Your task to perform on an android device: open a bookmark in the chrome app Image 0: 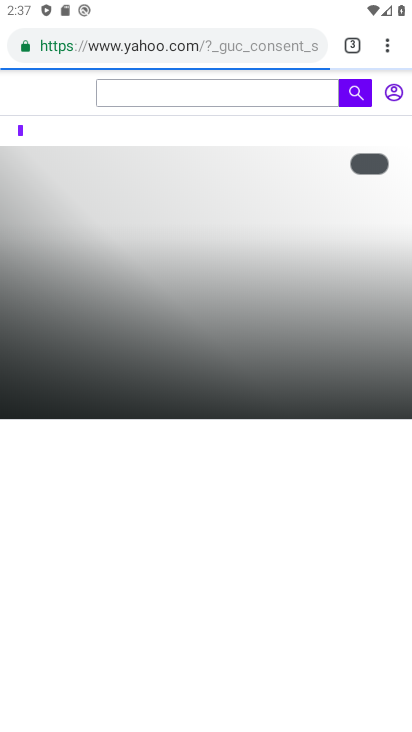
Step 0: drag from (389, 45) to (244, 175)
Your task to perform on an android device: open a bookmark in the chrome app Image 1: 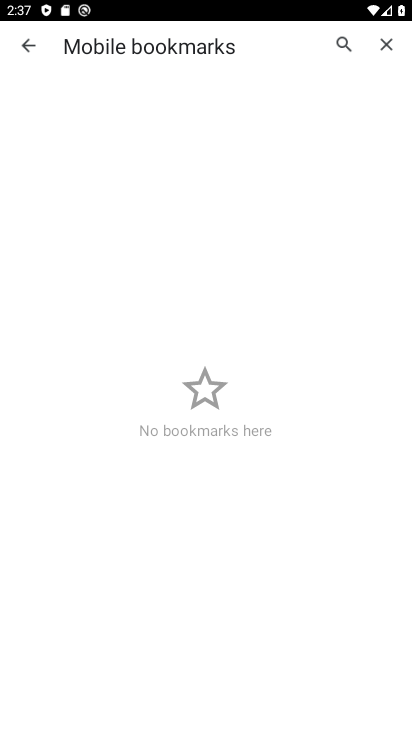
Step 1: task complete